Your task to perform on an android device: Open internet settings Image 0: 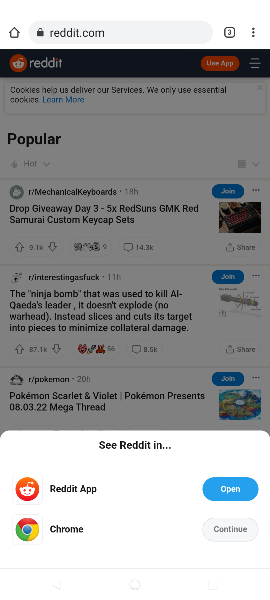
Step 0: press home button
Your task to perform on an android device: Open internet settings Image 1: 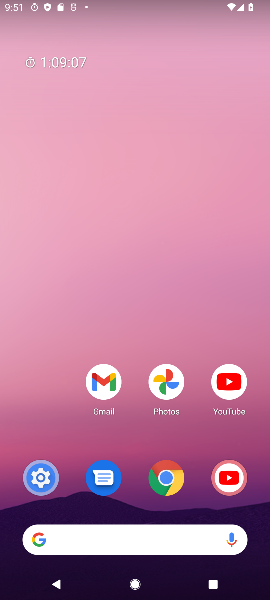
Step 1: drag from (157, 488) to (160, 55)
Your task to perform on an android device: Open internet settings Image 2: 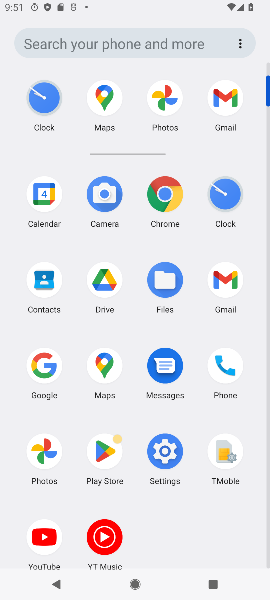
Step 2: click (156, 467)
Your task to perform on an android device: Open internet settings Image 3: 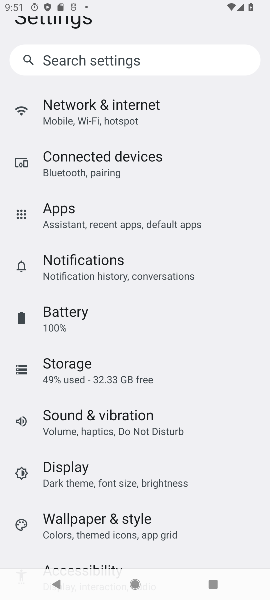
Step 3: click (38, 117)
Your task to perform on an android device: Open internet settings Image 4: 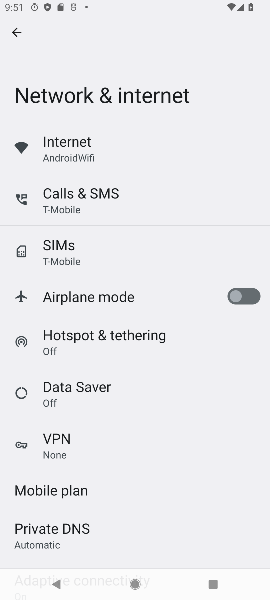
Step 4: click (120, 155)
Your task to perform on an android device: Open internet settings Image 5: 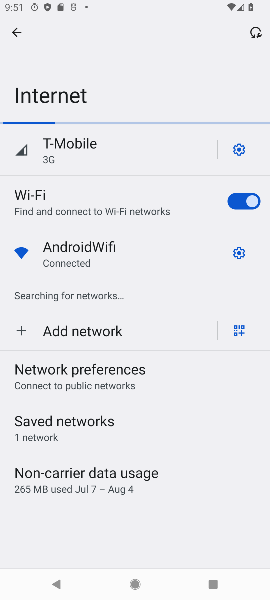
Step 5: task complete